Your task to perform on an android device: snooze an email in the gmail app Image 0: 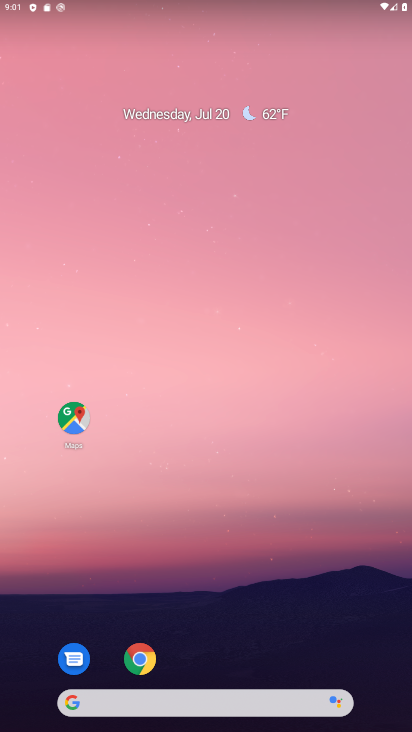
Step 0: drag from (189, 675) to (224, 70)
Your task to perform on an android device: snooze an email in the gmail app Image 1: 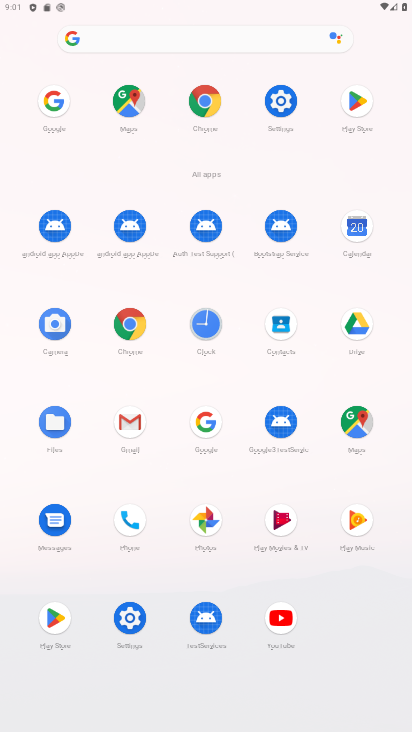
Step 1: click (127, 419)
Your task to perform on an android device: snooze an email in the gmail app Image 2: 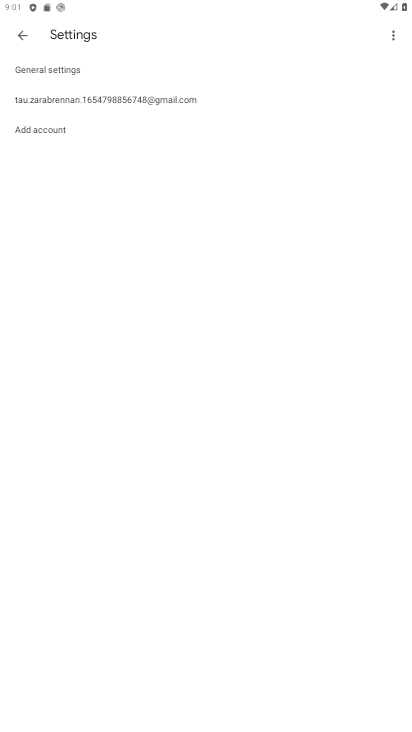
Step 2: click (24, 36)
Your task to perform on an android device: snooze an email in the gmail app Image 3: 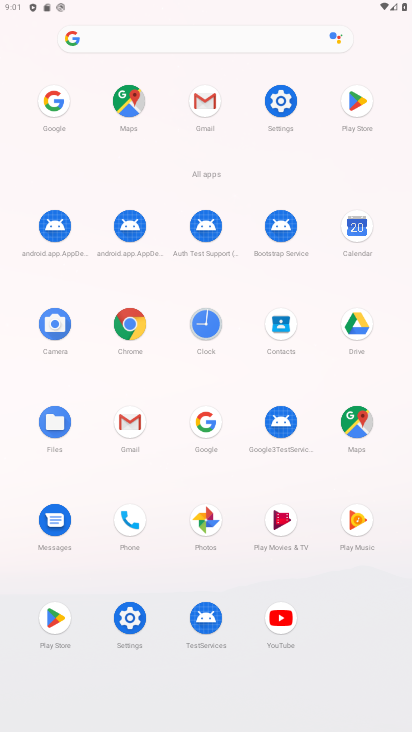
Step 3: click (196, 98)
Your task to perform on an android device: snooze an email in the gmail app Image 4: 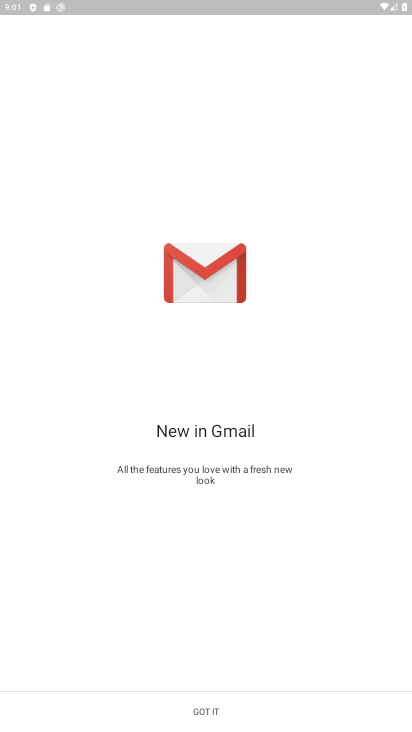
Step 4: click (187, 701)
Your task to perform on an android device: snooze an email in the gmail app Image 5: 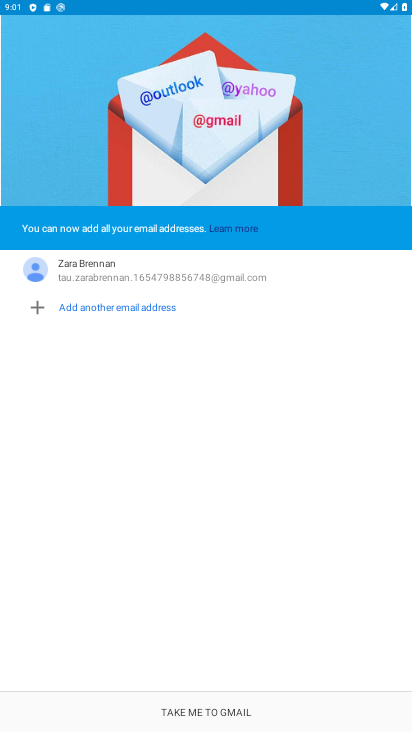
Step 5: click (187, 701)
Your task to perform on an android device: snooze an email in the gmail app Image 6: 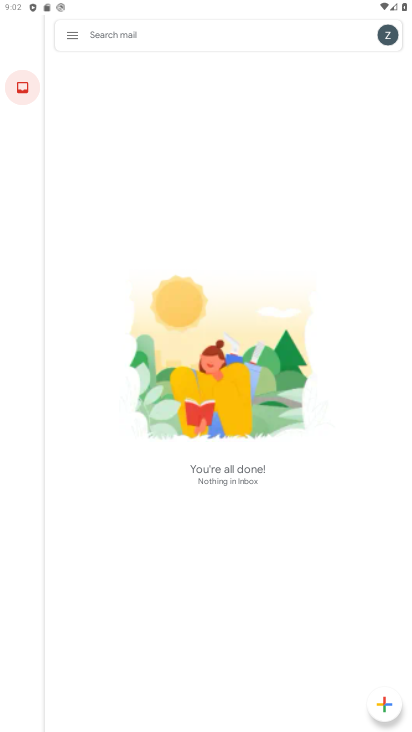
Step 6: task complete